Your task to perform on an android device: install app "Life360: Find Family & Friends" Image 0: 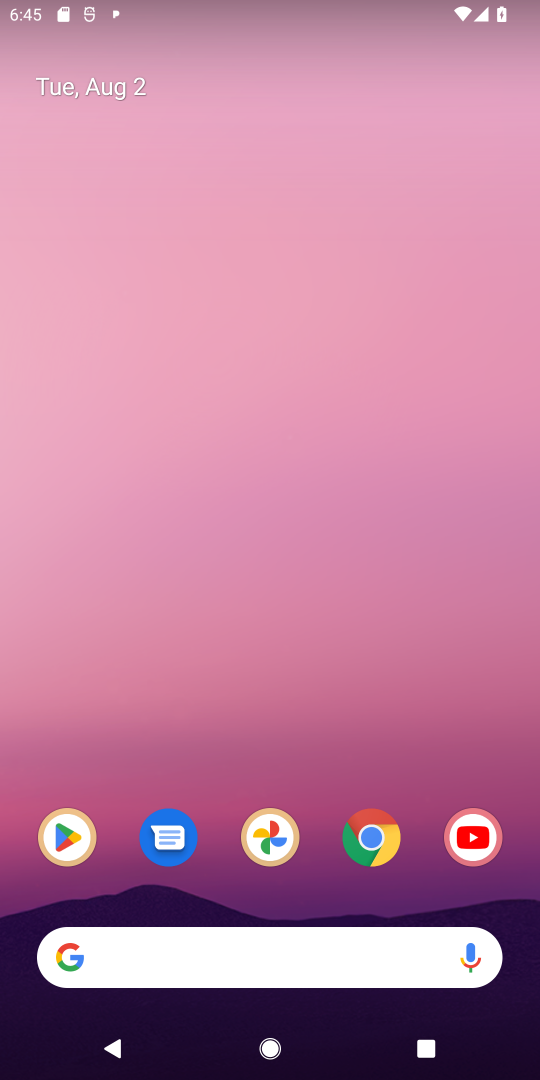
Step 0: click (52, 846)
Your task to perform on an android device: install app "Life360: Find Family & Friends" Image 1: 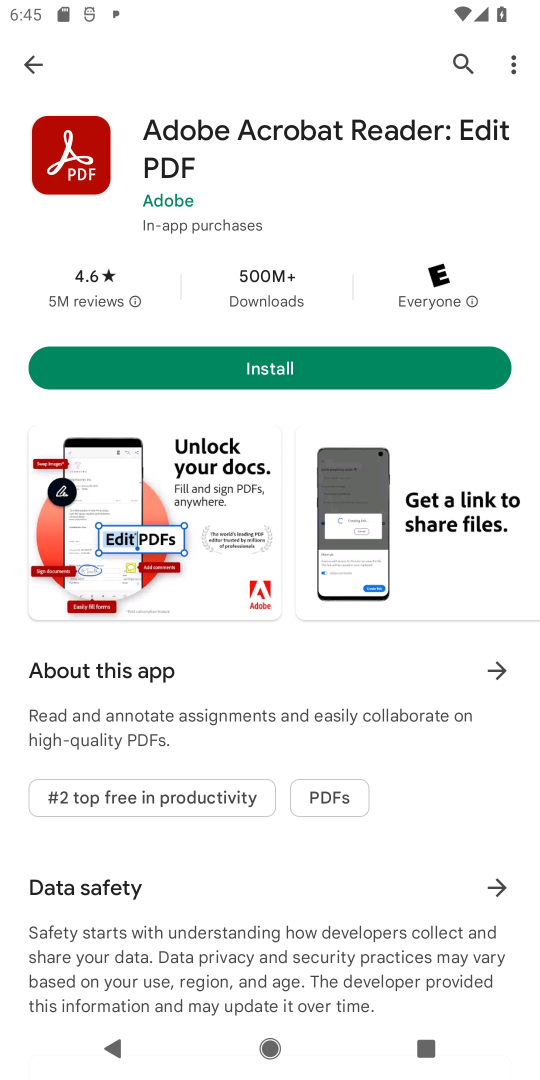
Step 1: click (453, 57)
Your task to perform on an android device: install app "Life360: Find Family & Friends" Image 2: 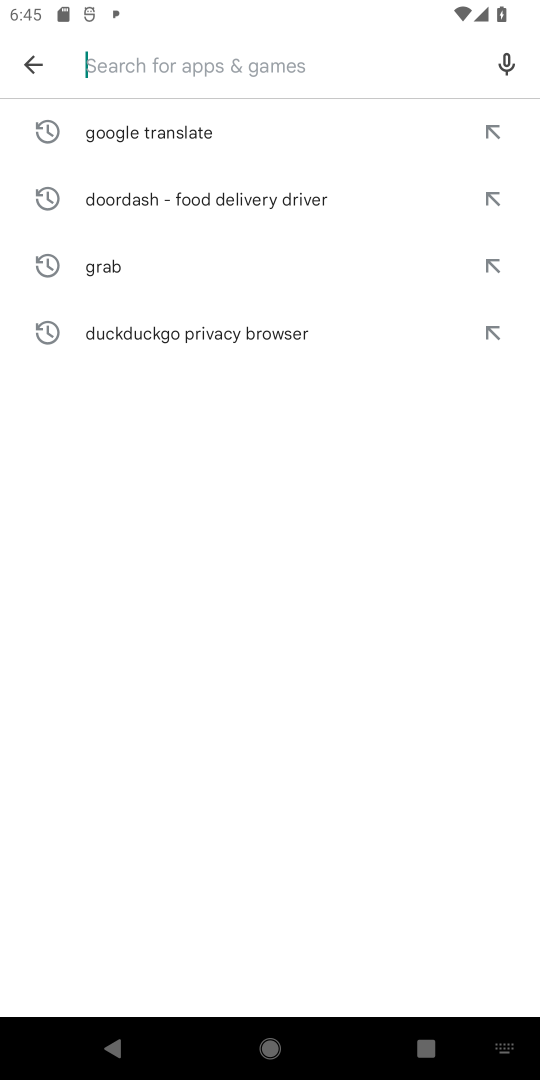
Step 2: type "Life360: Find Family & Friends"
Your task to perform on an android device: install app "Life360: Find Family & Friends" Image 3: 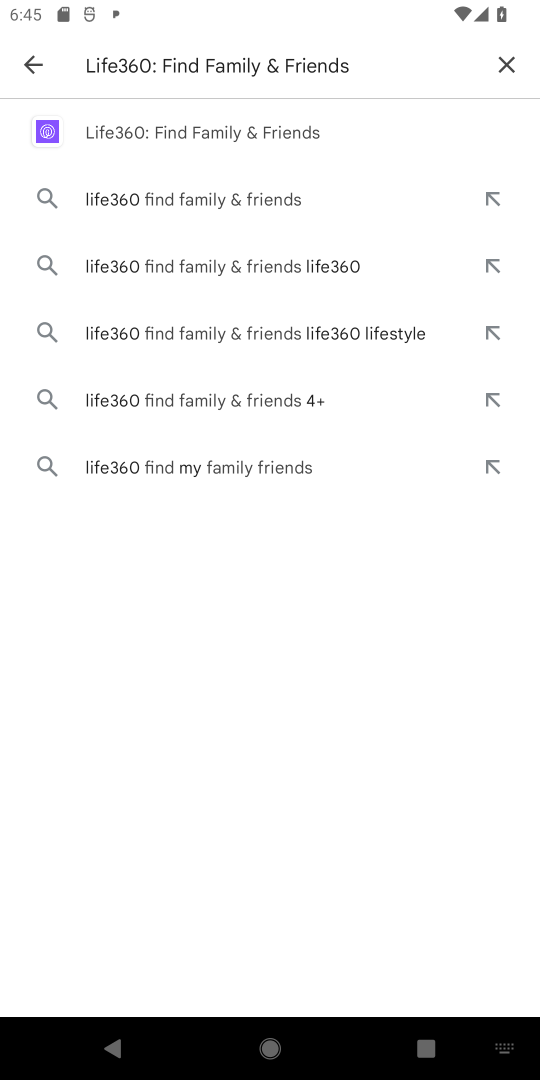
Step 3: click (162, 141)
Your task to perform on an android device: install app "Life360: Find Family & Friends" Image 4: 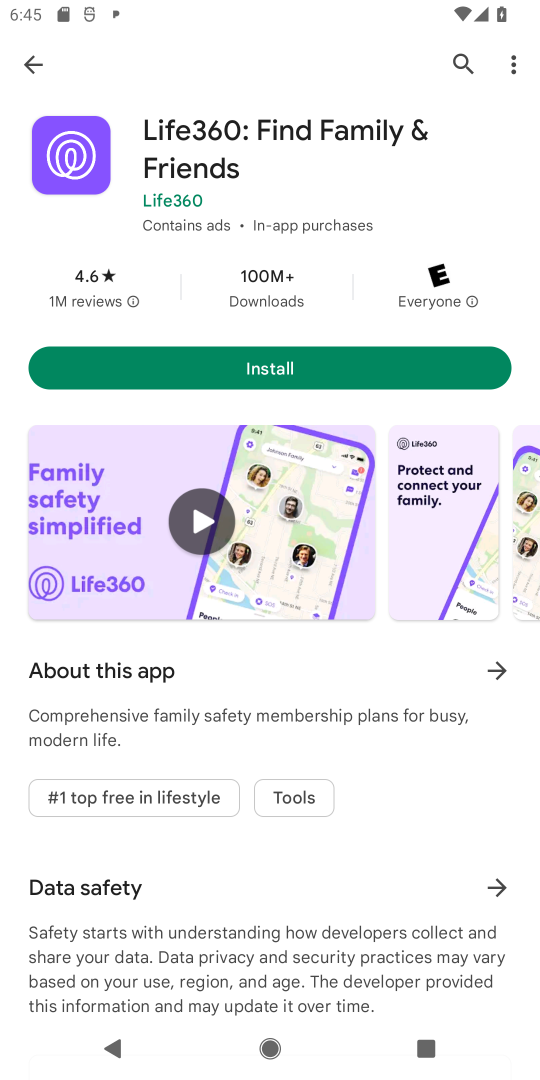
Step 4: click (231, 382)
Your task to perform on an android device: install app "Life360: Find Family & Friends" Image 5: 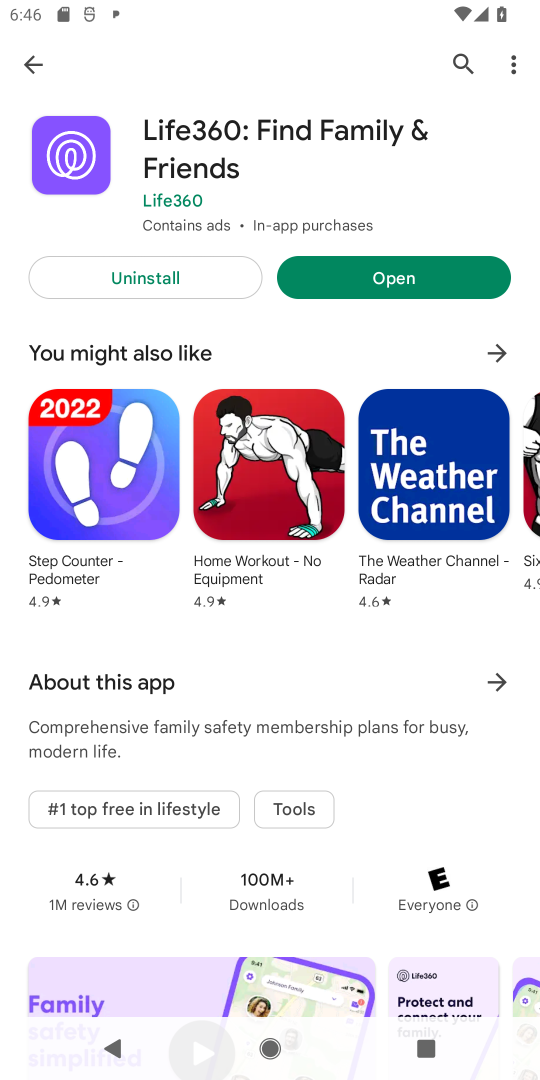
Step 5: task complete